Your task to perform on an android device: turn off javascript in the chrome app Image 0: 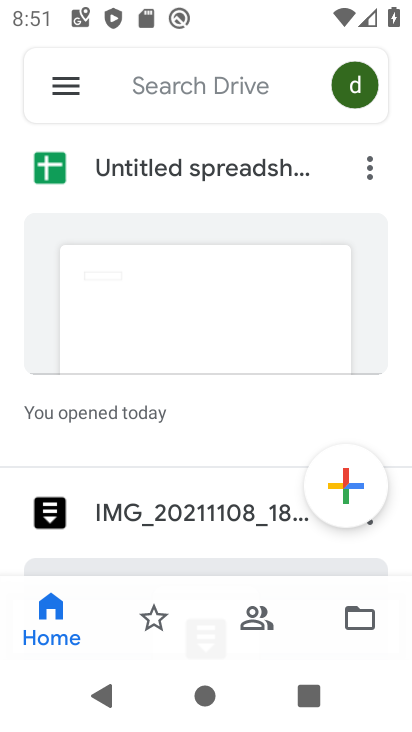
Step 0: press home button
Your task to perform on an android device: turn off javascript in the chrome app Image 1: 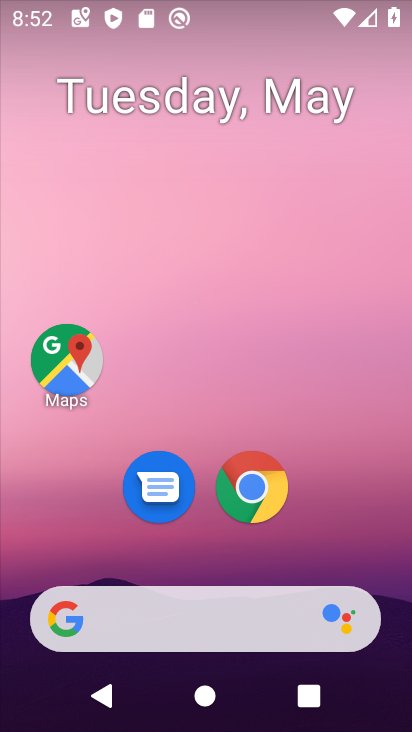
Step 1: drag from (381, 543) to (375, 207)
Your task to perform on an android device: turn off javascript in the chrome app Image 2: 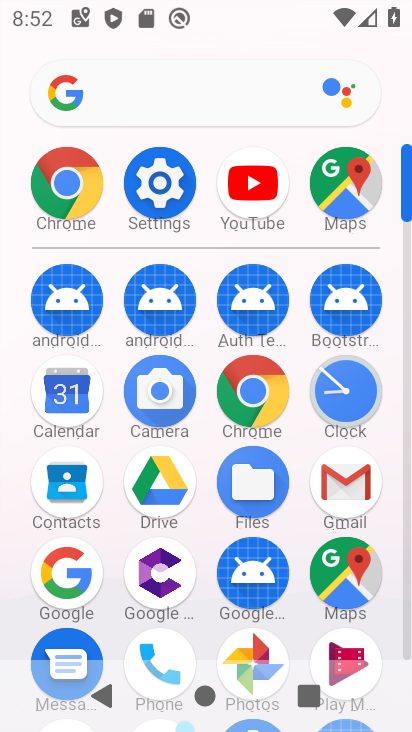
Step 2: click (271, 409)
Your task to perform on an android device: turn off javascript in the chrome app Image 3: 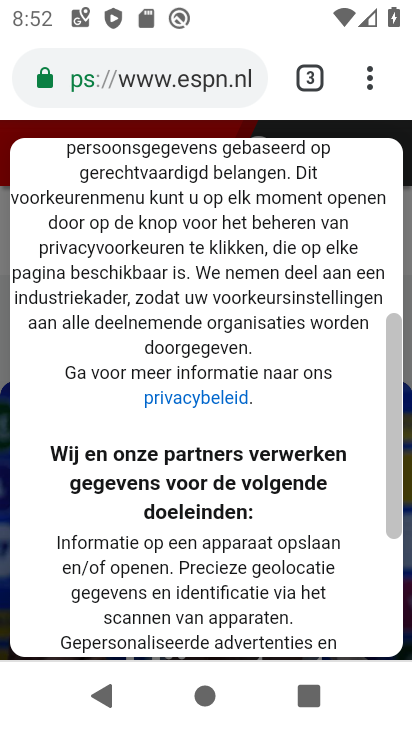
Step 3: click (372, 93)
Your task to perform on an android device: turn off javascript in the chrome app Image 4: 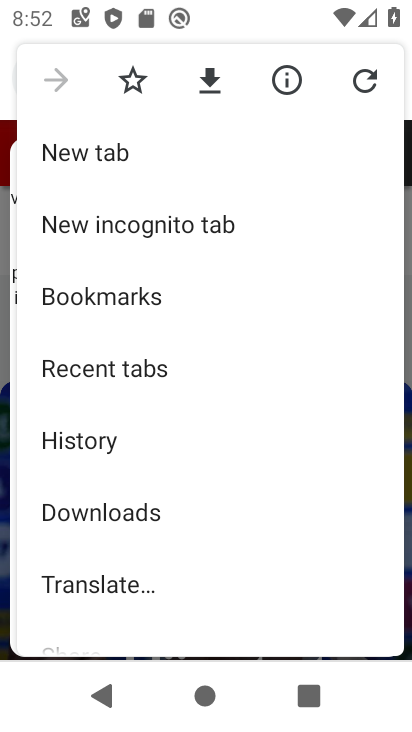
Step 4: drag from (302, 444) to (287, 348)
Your task to perform on an android device: turn off javascript in the chrome app Image 5: 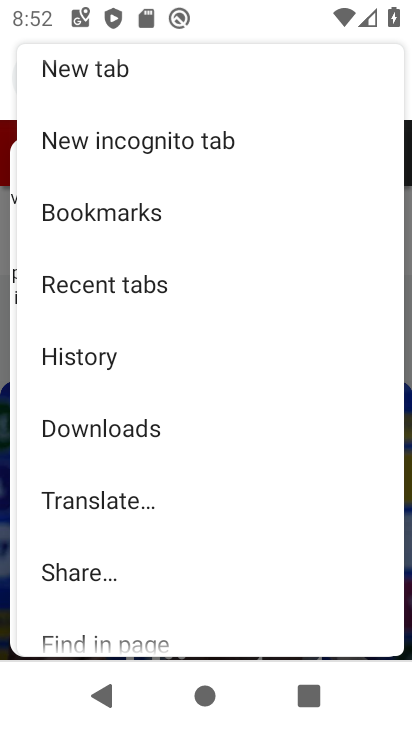
Step 5: drag from (317, 498) to (309, 384)
Your task to perform on an android device: turn off javascript in the chrome app Image 6: 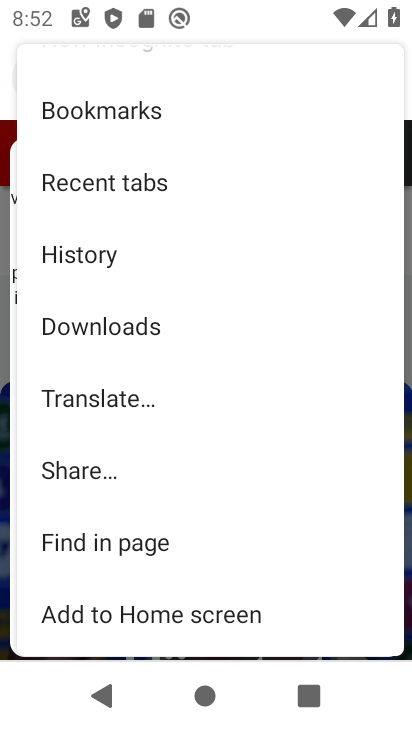
Step 6: drag from (310, 498) to (310, 354)
Your task to perform on an android device: turn off javascript in the chrome app Image 7: 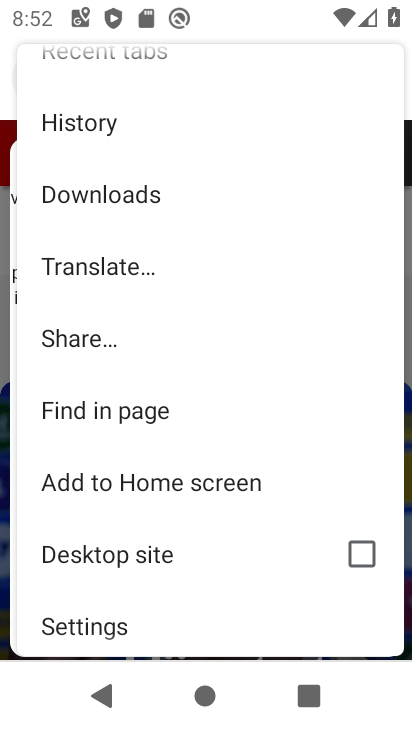
Step 7: drag from (298, 547) to (297, 392)
Your task to perform on an android device: turn off javascript in the chrome app Image 8: 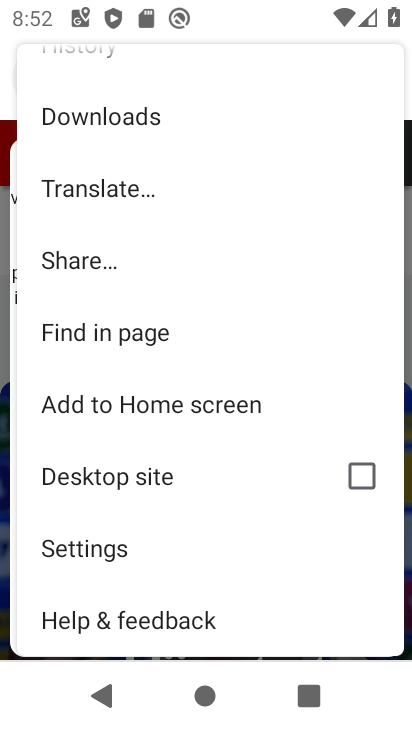
Step 8: click (158, 554)
Your task to perform on an android device: turn off javascript in the chrome app Image 9: 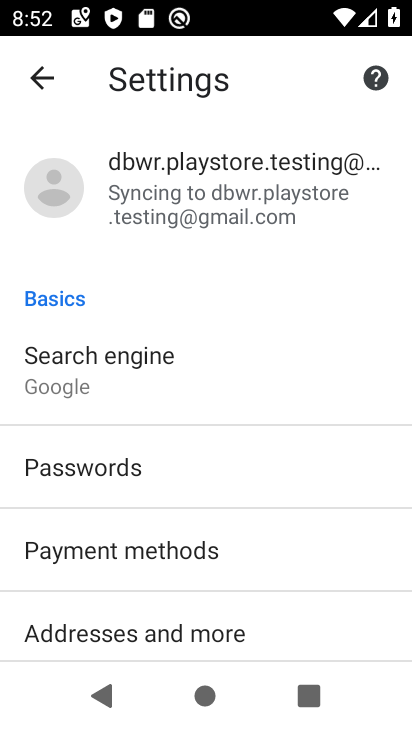
Step 9: drag from (319, 505) to (314, 419)
Your task to perform on an android device: turn off javascript in the chrome app Image 10: 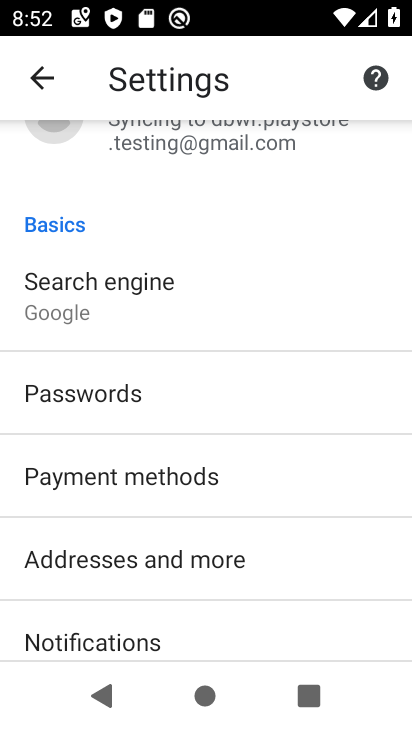
Step 10: drag from (336, 520) to (342, 426)
Your task to perform on an android device: turn off javascript in the chrome app Image 11: 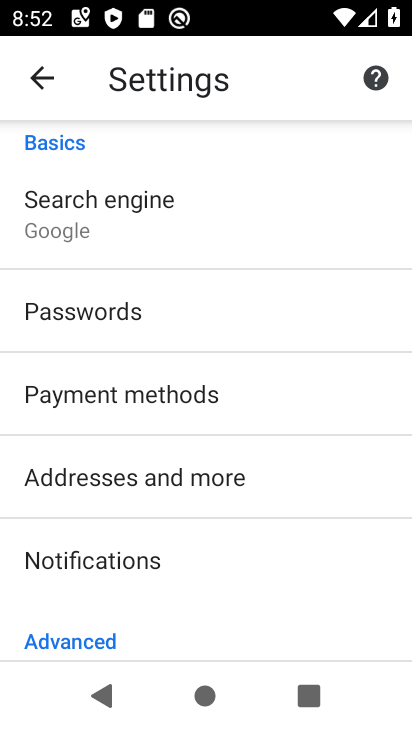
Step 11: drag from (338, 558) to (333, 465)
Your task to perform on an android device: turn off javascript in the chrome app Image 12: 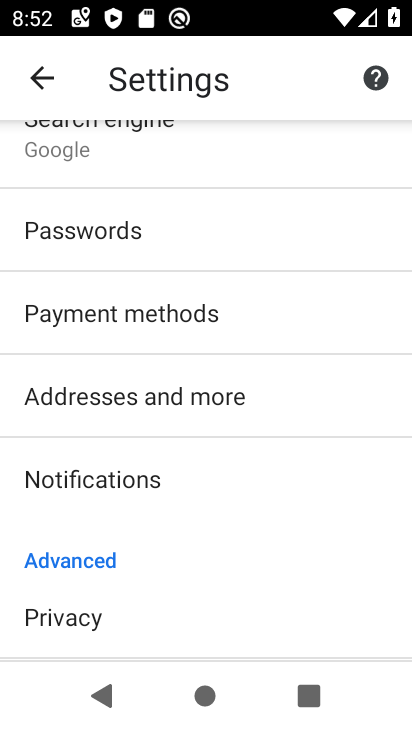
Step 12: drag from (348, 559) to (354, 450)
Your task to perform on an android device: turn off javascript in the chrome app Image 13: 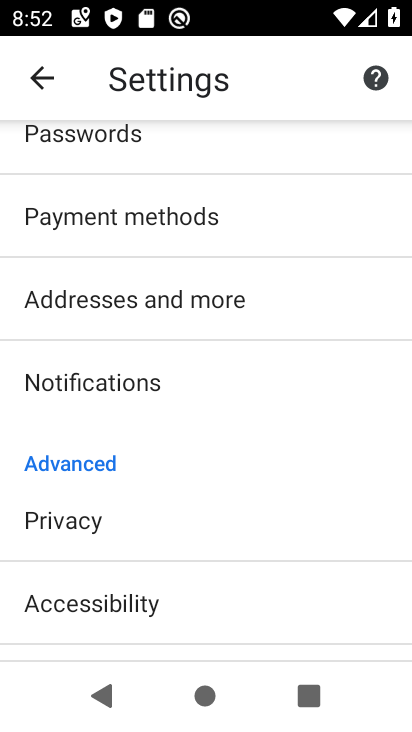
Step 13: drag from (363, 580) to (368, 457)
Your task to perform on an android device: turn off javascript in the chrome app Image 14: 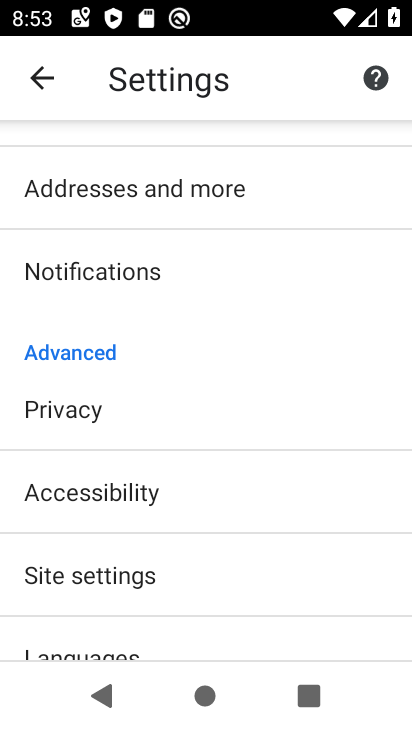
Step 14: click (323, 575)
Your task to perform on an android device: turn off javascript in the chrome app Image 15: 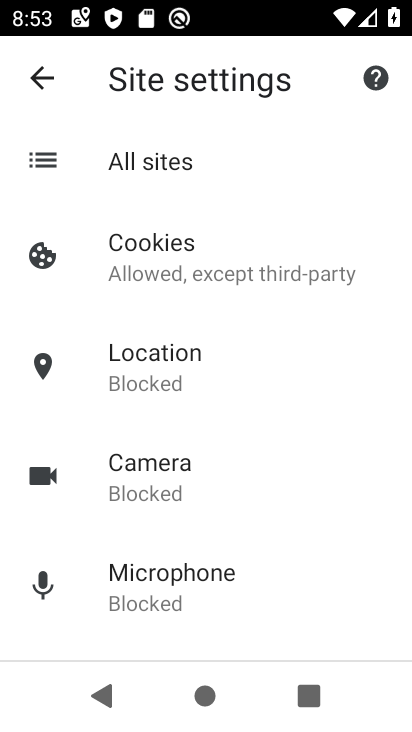
Step 15: drag from (343, 574) to (346, 468)
Your task to perform on an android device: turn off javascript in the chrome app Image 16: 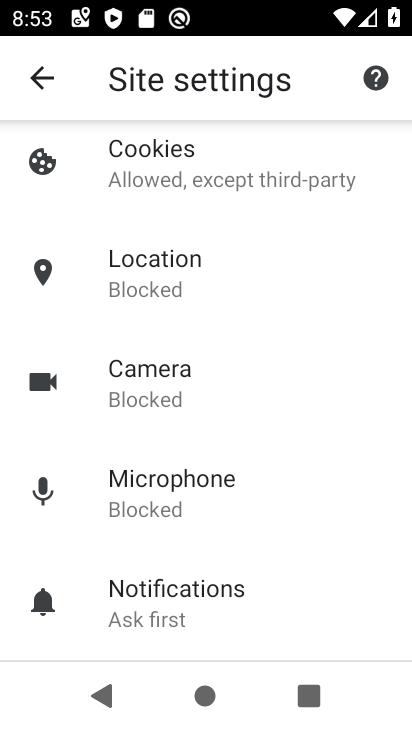
Step 16: drag from (342, 561) to (337, 452)
Your task to perform on an android device: turn off javascript in the chrome app Image 17: 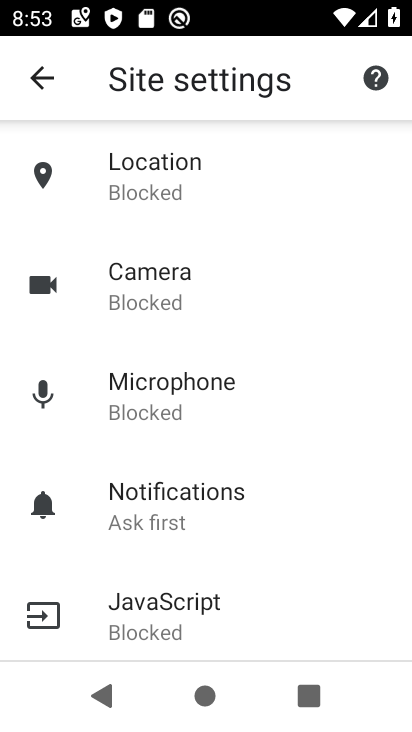
Step 17: drag from (338, 584) to (330, 411)
Your task to perform on an android device: turn off javascript in the chrome app Image 18: 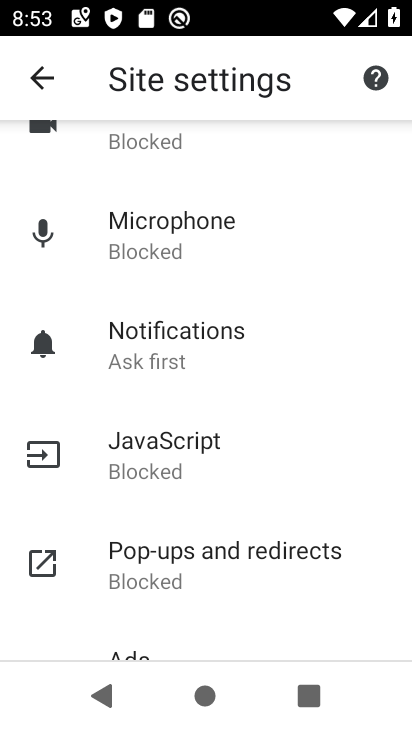
Step 18: click (273, 463)
Your task to perform on an android device: turn off javascript in the chrome app Image 19: 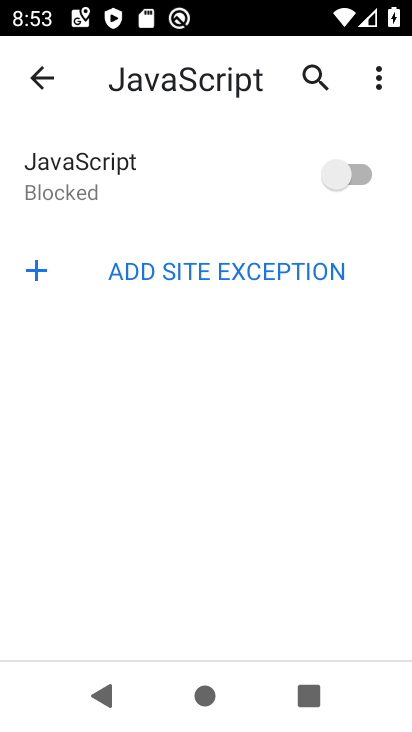
Step 19: task complete